Your task to perform on an android device: delete location history Image 0: 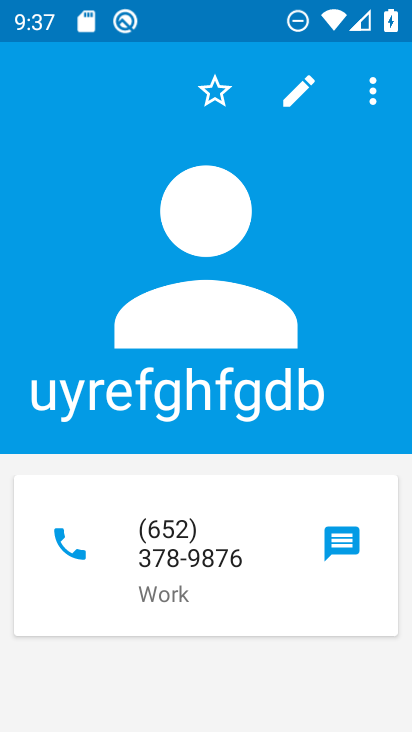
Step 0: press home button
Your task to perform on an android device: delete location history Image 1: 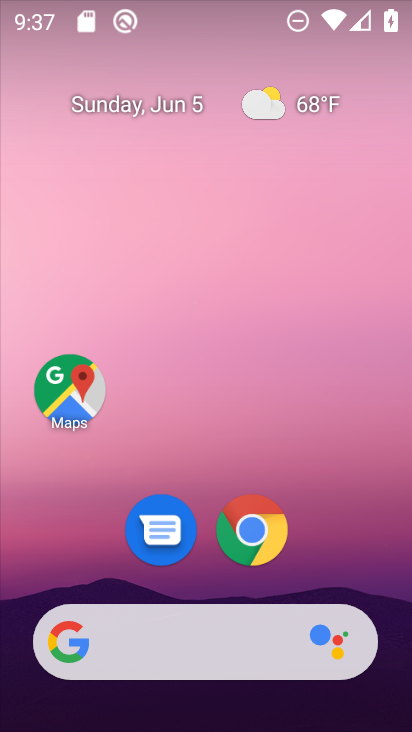
Step 1: drag from (398, 624) to (368, 3)
Your task to perform on an android device: delete location history Image 2: 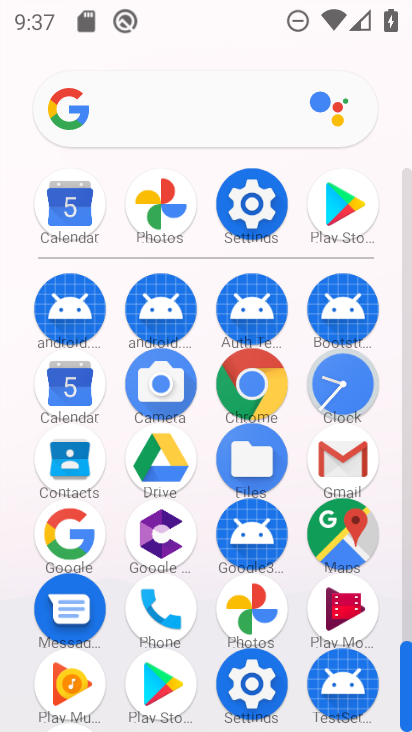
Step 2: click (343, 542)
Your task to perform on an android device: delete location history Image 3: 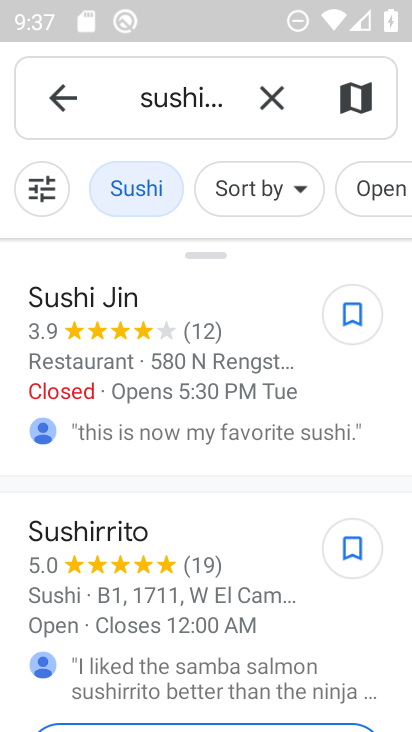
Step 3: click (259, 94)
Your task to perform on an android device: delete location history Image 4: 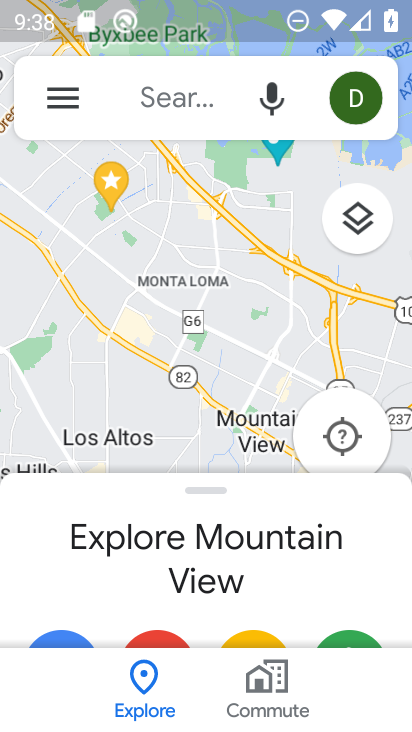
Step 4: click (71, 110)
Your task to perform on an android device: delete location history Image 5: 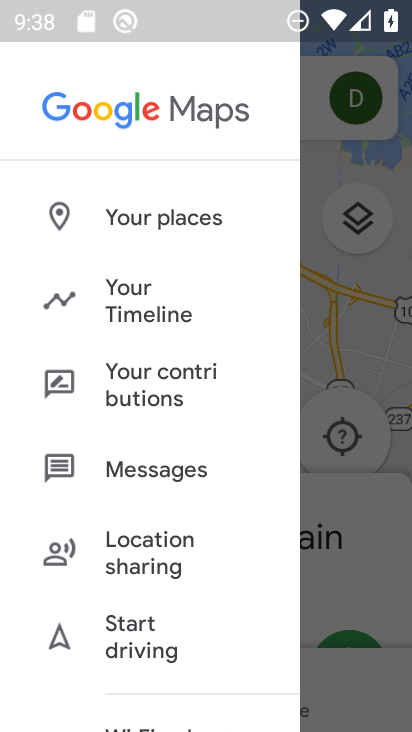
Step 5: drag from (205, 644) to (227, 216)
Your task to perform on an android device: delete location history Image 6: 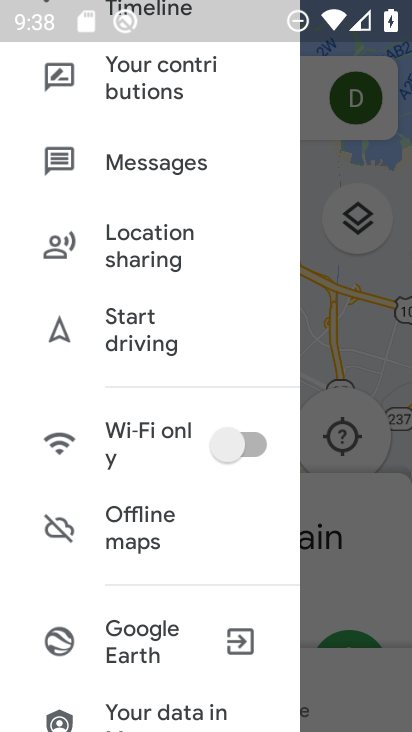
Step 6: drag from (204, 682) to (194, 207)
Your task to perform on an android device: delete location history Image 7: 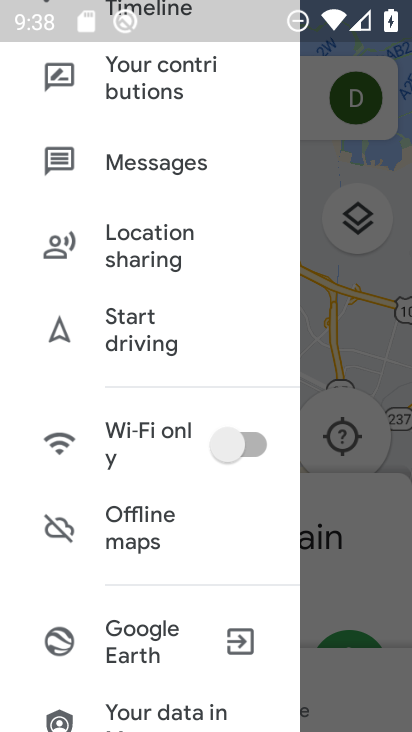
Step 7: drag from (165, 687) to (200, 249)
Your task to perform on an android device: delete location history Image 8: 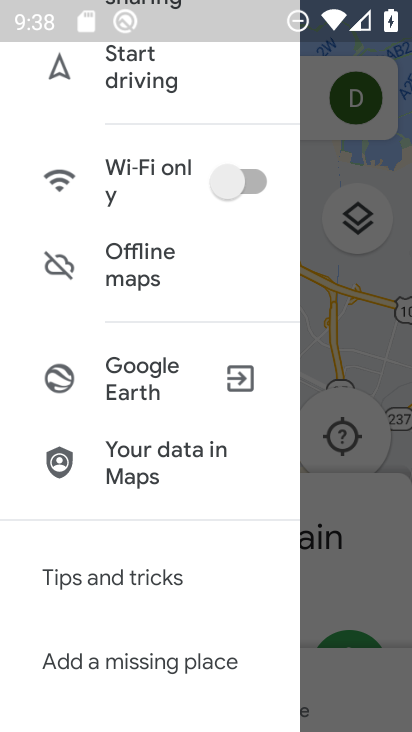
Step 8: drag from (226, 703) to (203, 204)
Your task to perform on an android device: delete location history Image 9: 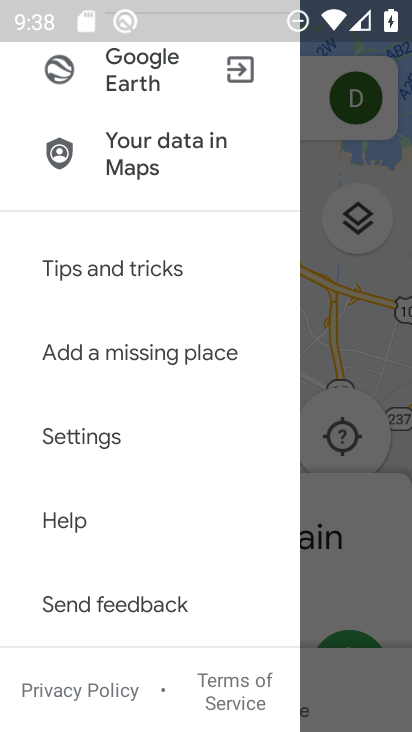
Step 9: click (111, 438)
Your task to perform on an android device: delete location history Image 10: 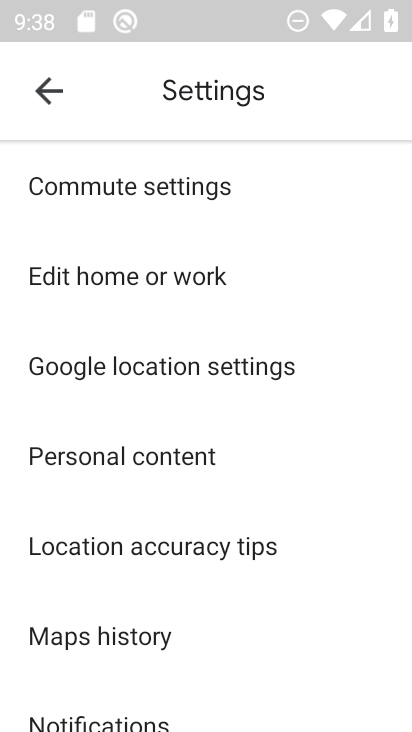
Step 10: click (150, 454)
Your task to perform on an android device: delete location history Image 11: 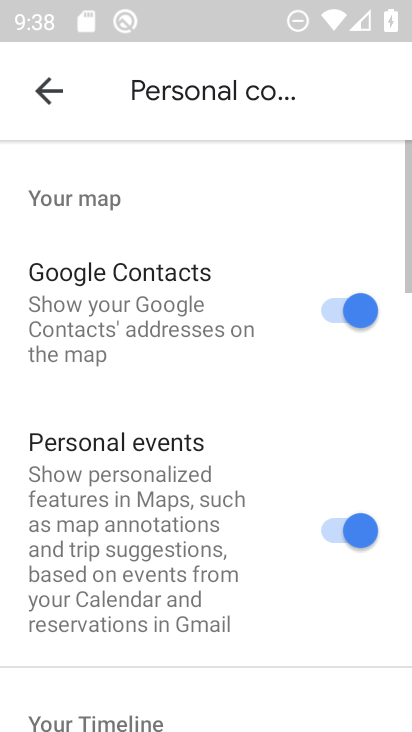
Step 11: drag from (265, 663) to (287, 228)
Your task to perform on an android device: delete location history Image 12: 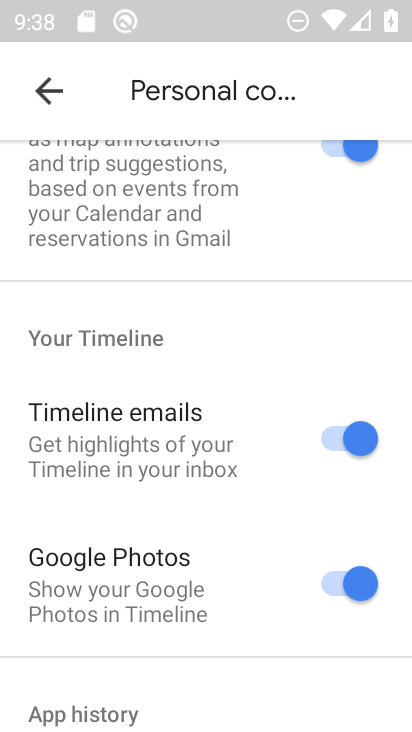
Step 12: drag from (259, 635) to (250, 176)
Your task to perform on an android device: delete location history Image 13: 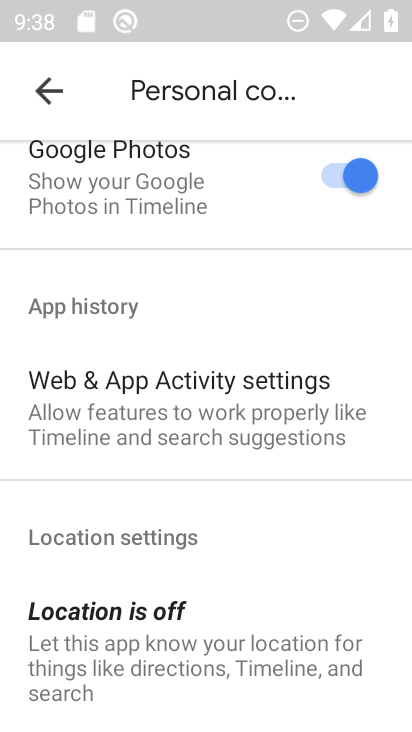
Step 13: drag from (271, 625) to (264, 252)
Your task to perform on an android device: delete location history Image 14: 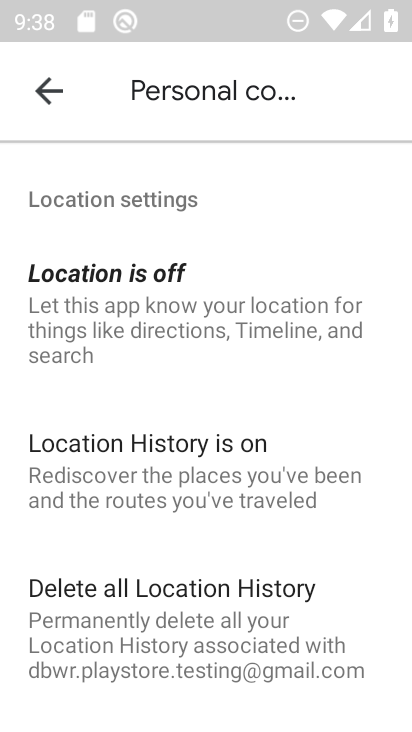
Step 14: click (146, 590)
Your task to perform on an android device: delete location history Image 15: 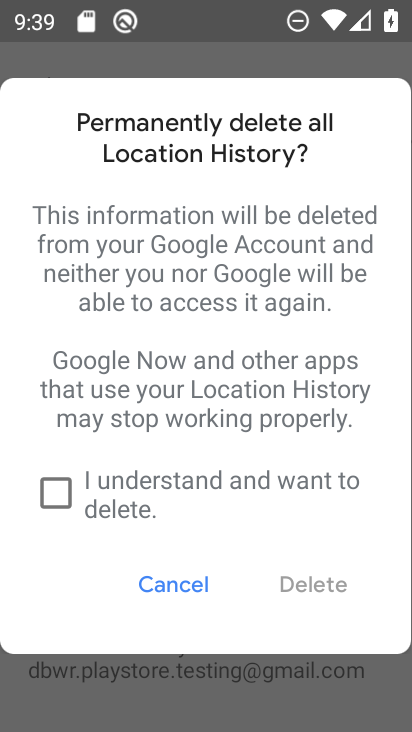
Step 15: click (48, 493)
Your task to perform on an android device: delete location history Image 16: 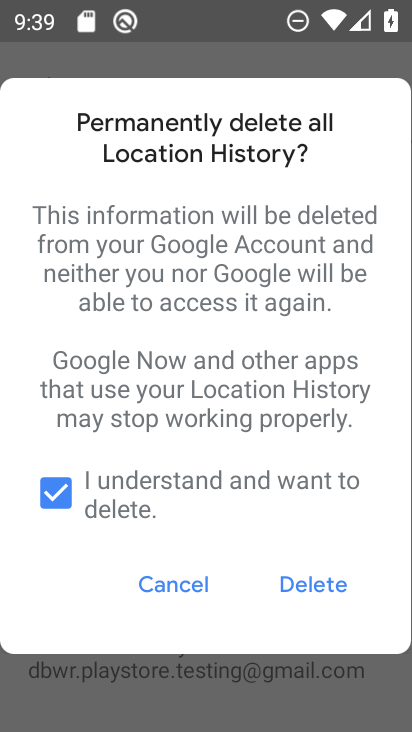
Step 16: click (321, 583)
Your task to perform on an android device: delete location history Image 17: 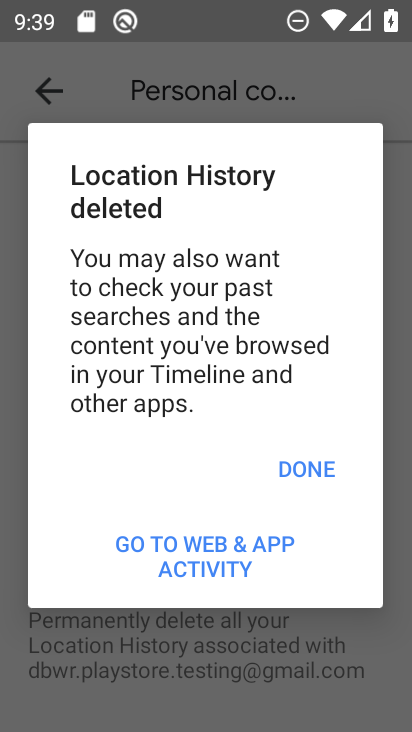
Step 17: click (309, 476)
Your task to perform on an android device: delete location history Image 18: 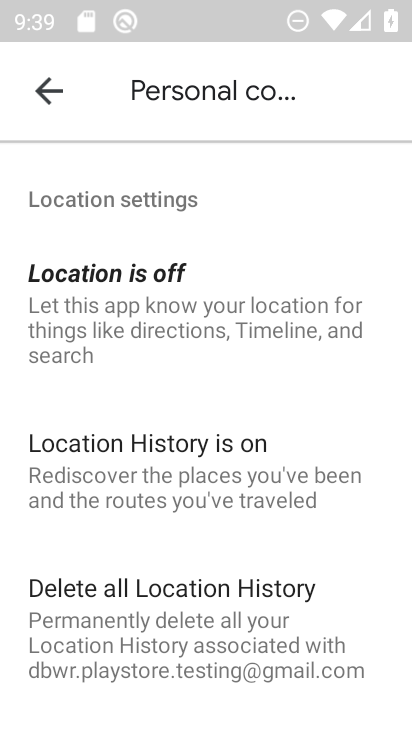
Step 18: task complete